Your task to perform on an android device: turn off airplane mode Image 0: 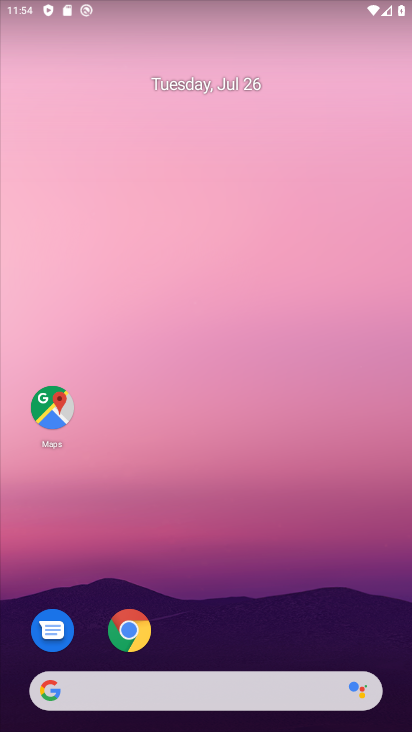
Step 0: drag from (242, 590) to (205, 84)
Your task to perform on an android device: turn off airplane mode Image 1: 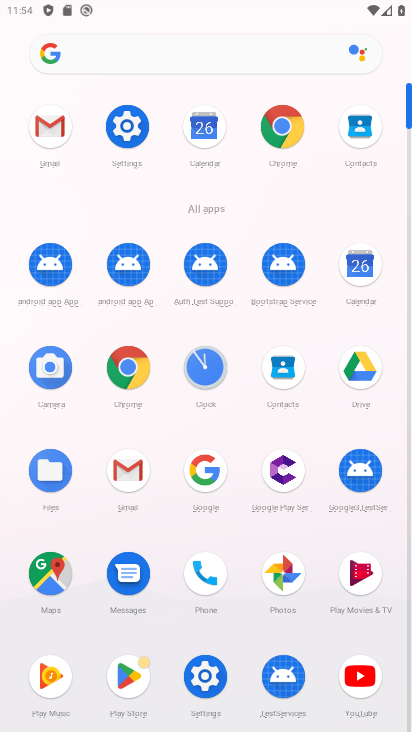
Step 1: click (118, 141)
Your task to perform on an android device: turn off airplane mode Image 2: 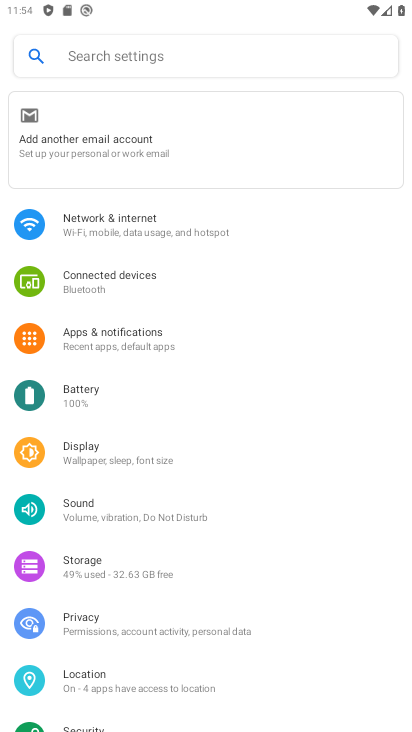
Step 2: click (135, 229)
Your task to perform on an android device: turn off airplane mode Image 3: 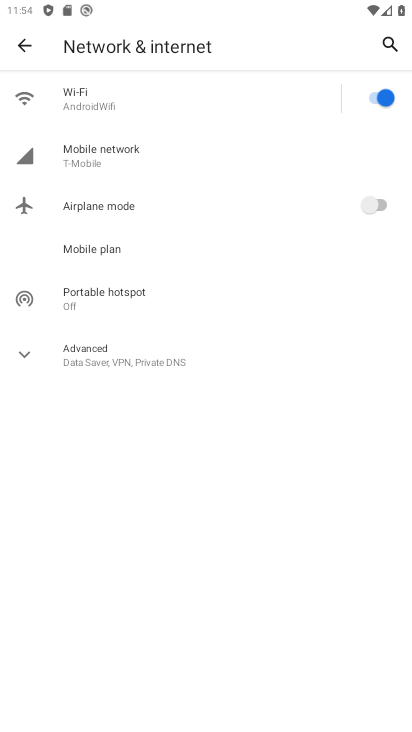
Step 3: task complete